Your task to perform on an android device: turn off notifications in google photos Image 0: 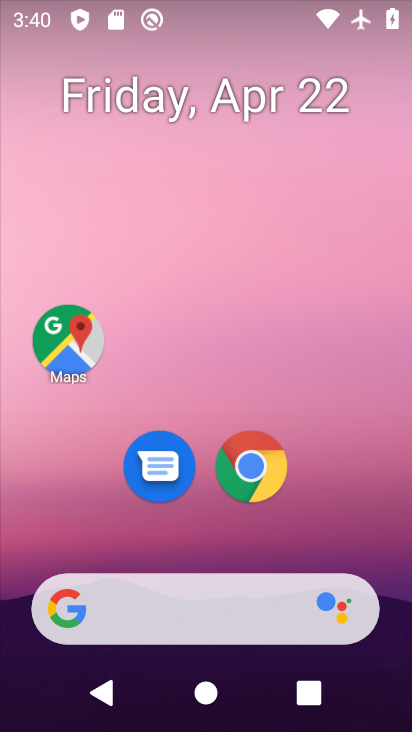
Step 0: drag from (397, 600) to (353, 235)
Your task to perform on an android device: turn off notifications in google photos Image 1: 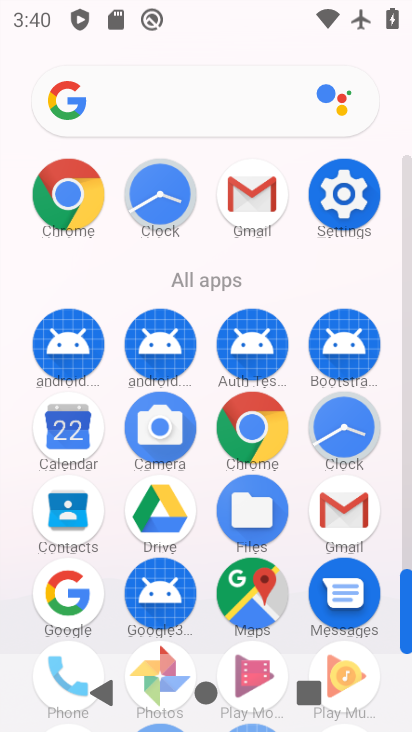
Step 1: drag from (406, 552) to (407, 488)
Your task to perform on an android device: turn off notifications in google photos Image 2: 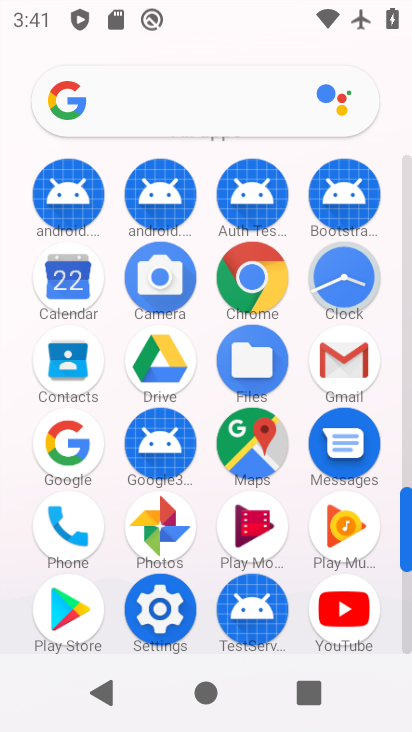
Step 2: click (157, 523)
Your task to perform on an android device: turn off notifications in google photos Image 3: 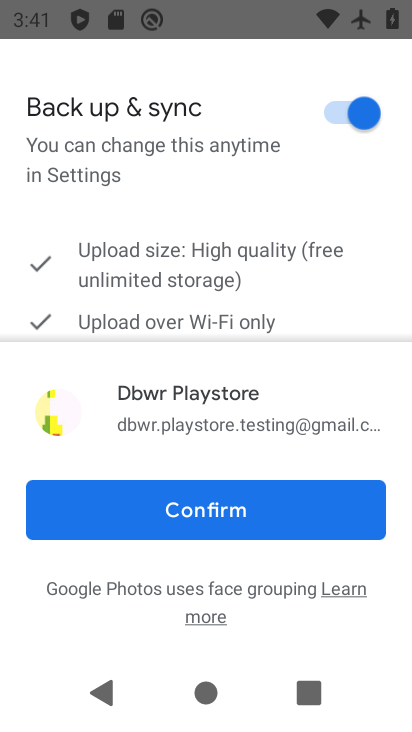
Step 3: click (191, 511)
Your task to perform on an android device: turn off notifications in google photos Image 4: 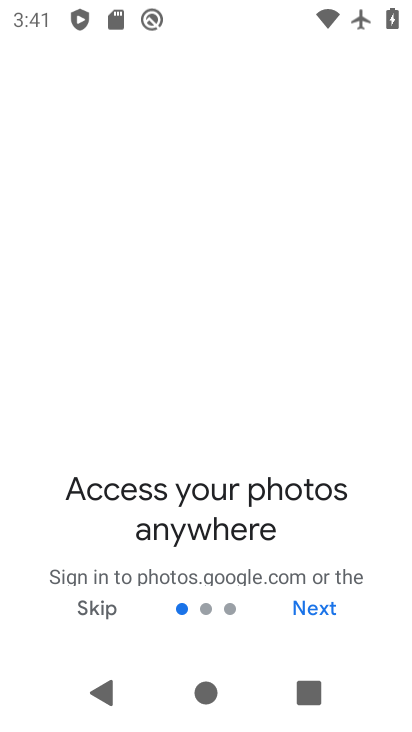
Step 4: click (312, 604)
Your task to perform on an android device: turn off notifications in google photos Image 5: 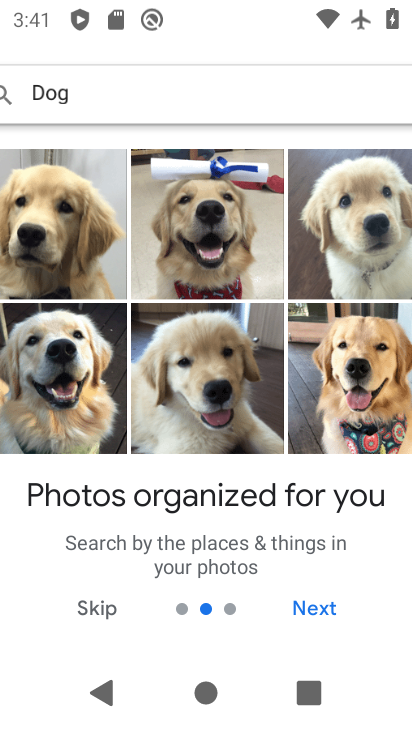
Step 5: click (312, 604)
Your task to perform on an android device: turn off notifications in google photos Image 6: 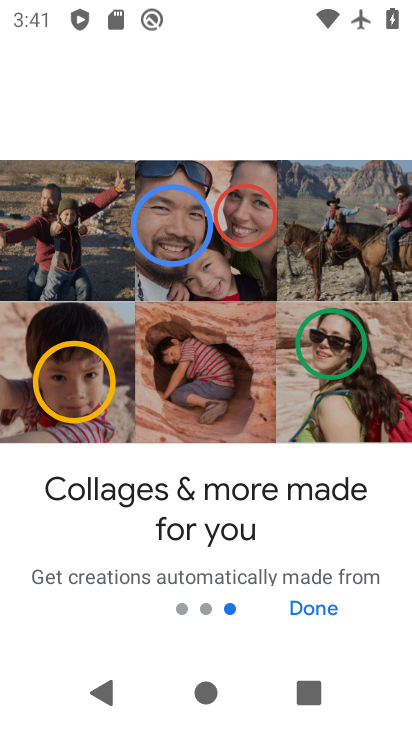
Step 6: click (312, 604)
Your task to perform on an android device: turn off notifications in google photos Image 7: 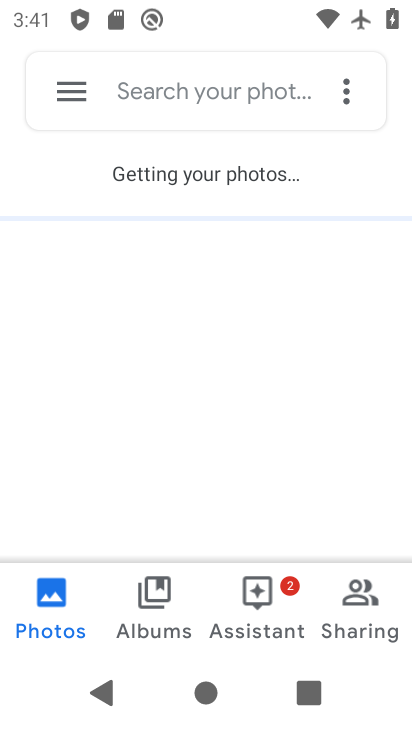
Step 7: click (68, 88)
Your task to perform on an android device: turn off notifications in google photos Image 8: 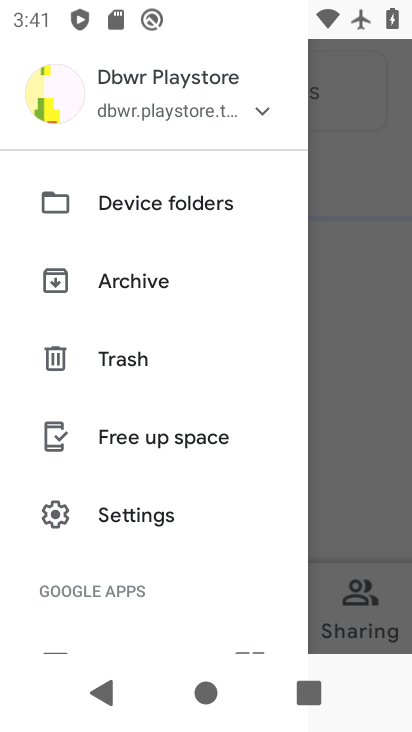
Step 8: click (99, 503)
Your task to perform on an android device: turn off notifications in google photos Image 9: 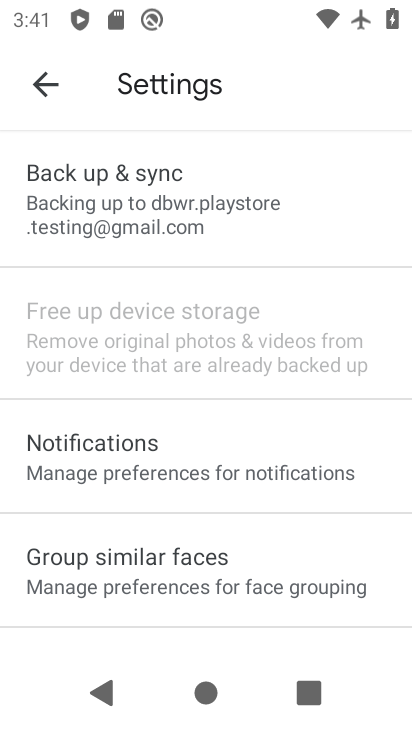
Step 9: click (109, 462)
Your task to perform on an android device: turn off notifications in google photos Image 10: 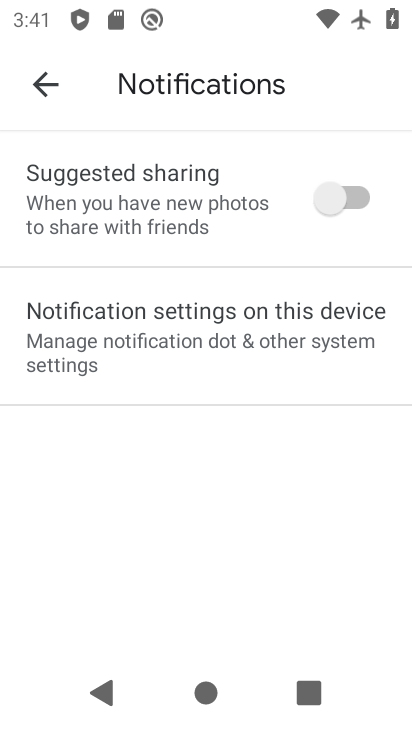
Step 10: click (168, 309)
Your task to perform on an android device: turn off notifications in google photos Image 11: 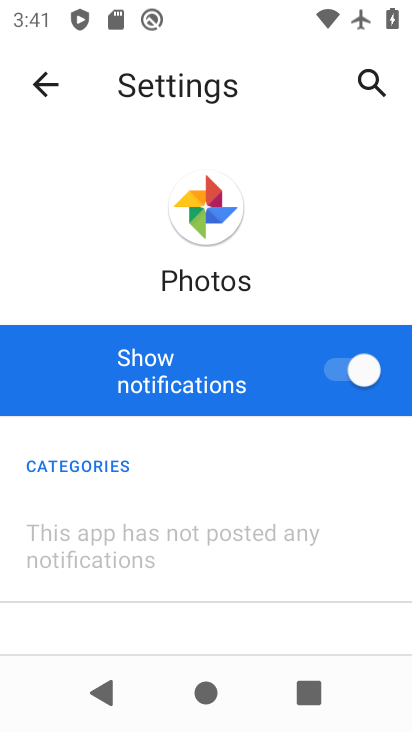
Step 11: click (339, 369)
Your task to perform on an android device: turn off notifications in google photos Image 12: 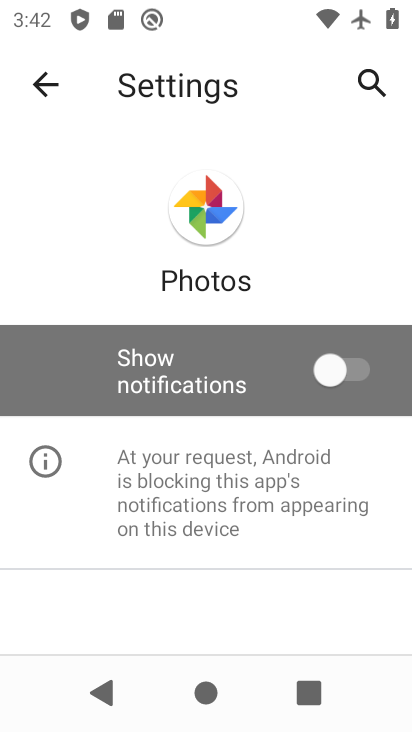
Step 12: task complete